Your task to perform on an android device: Open eBay Image 0: 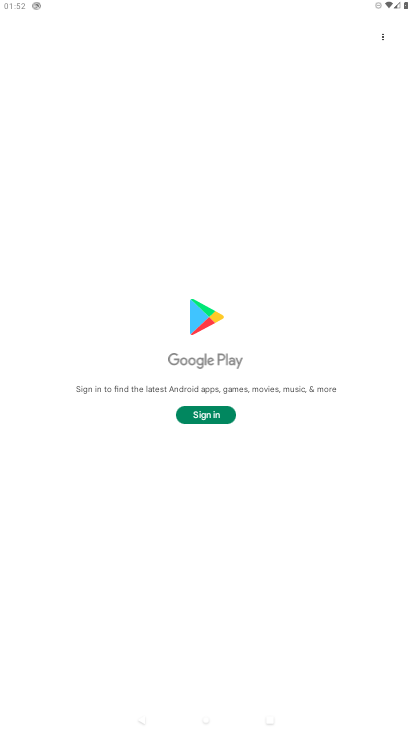
Step 0: press home button
Your task to perform on an android device: Open eBay Image 1: 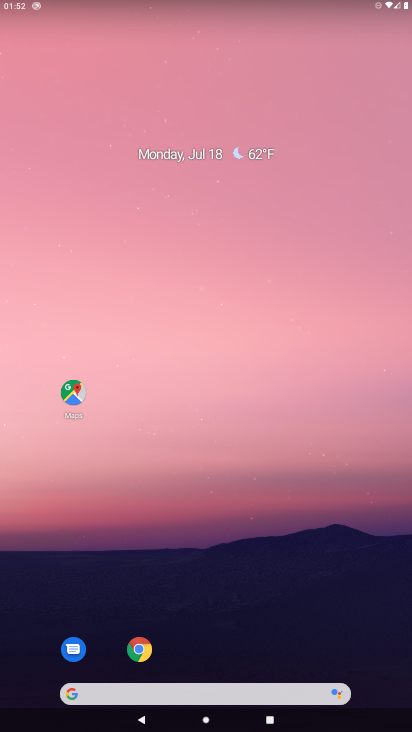
Step 1: click (117, 687)
Your task to perform on an android device: Open eBay Image 2: 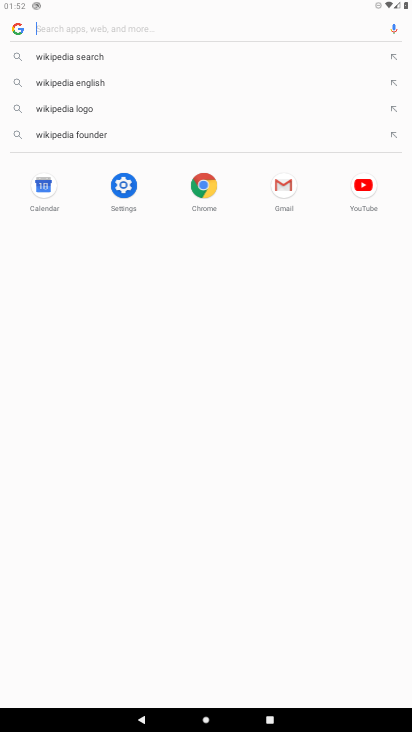
Step 2: type "eBay"
Your task to perform on an android device: Open eBay Image 3: 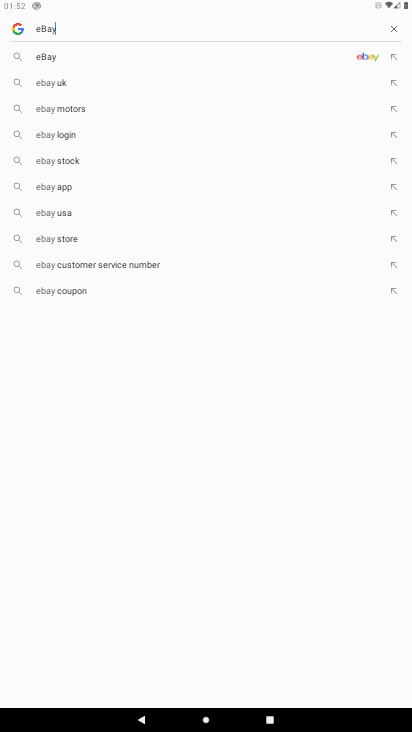
Step 3: type ""
Your task to perform on an android device: Open eBay Image 4: 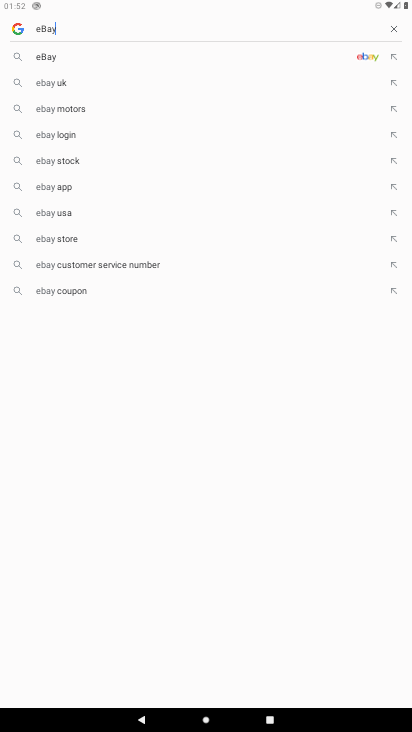
Step 4: click (52, 54)
Your task to perform on an android device: Open eBay Image 5: 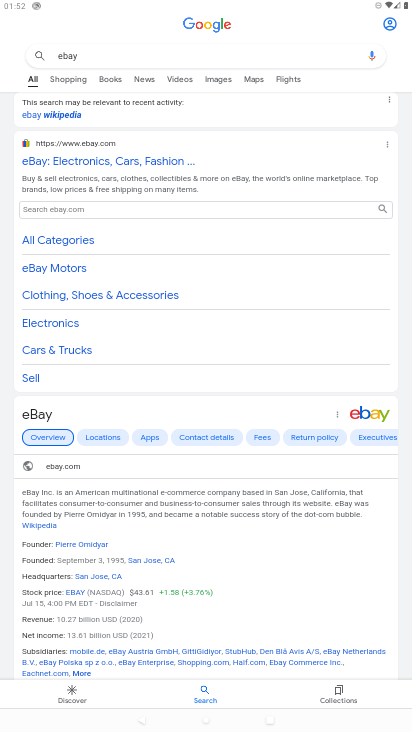
Step 5: task complete